Your task to perform on an android device: show emergency info Image 0: 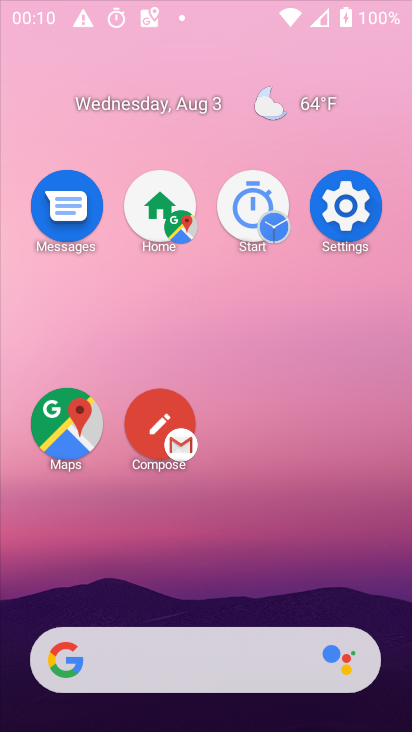
Step 0: drag from (248, 184) to (255, 266)
Your task to perform on an android device: show emergency info Image 1: 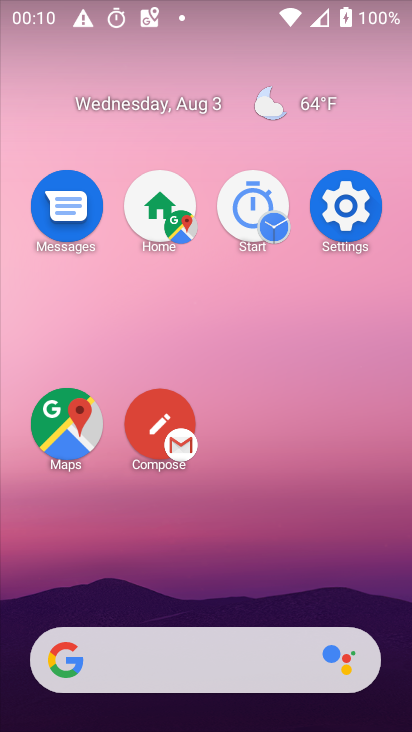
Step 1: click (350, 218)
Your task to perform on an android device: show emergency info Image 2: 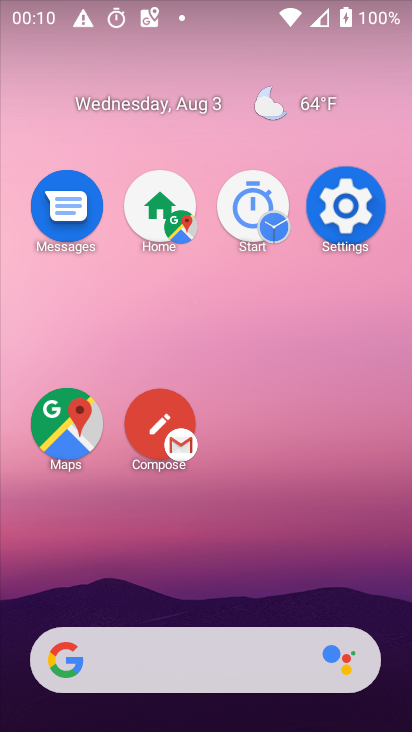
Step 2: click (352, 218)
Your task to perform on an android device: show emergency info Image 3: 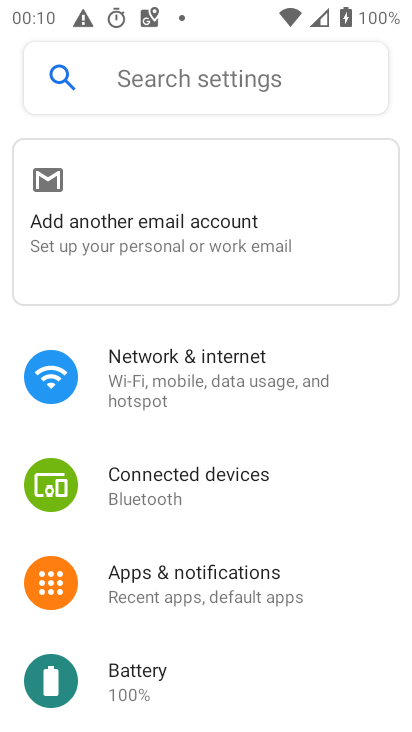
Step 3: drag from (146, 594) to (112, 166)
Your task to perform on an android device: show emergency info Image 4: 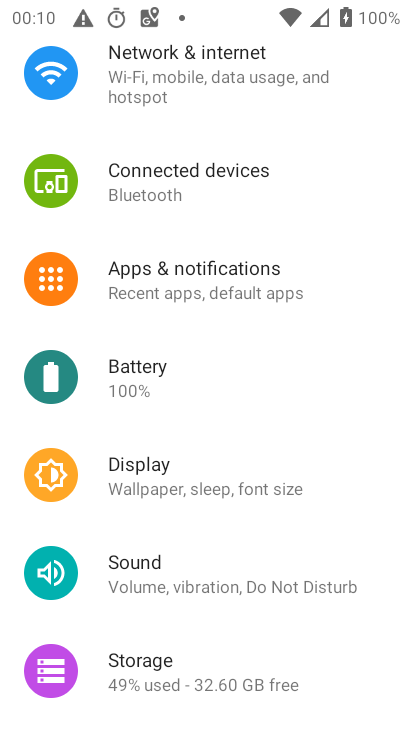
Step 4: drag from (159, 514) to (159, 268)
Your task to perform on an android device: show emergency info Image 5: 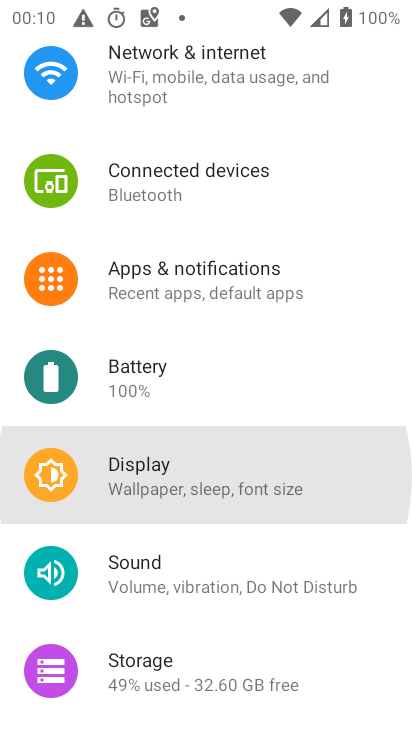
Step 5: drag from (214, 453) to (214, 243)
Your task to perform on an android device: show emergency info Image 6: 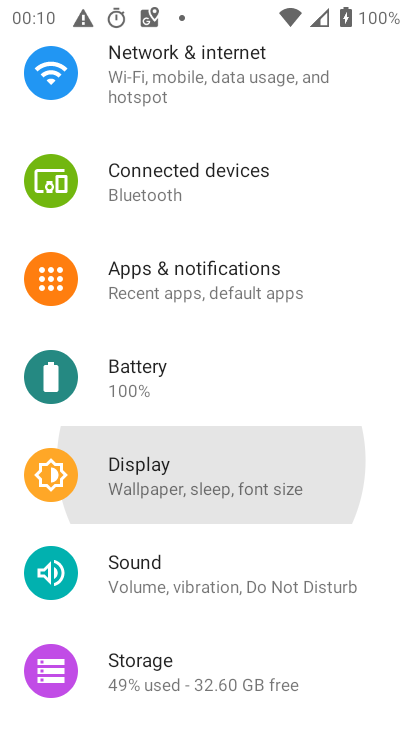
Step 6: drag from (209, 430) to (215, 255)
Your task to perform on an android device: show emergency info Image 7: 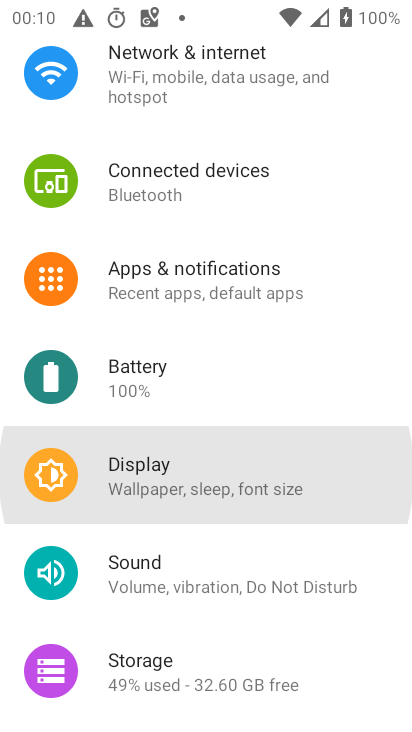
Step 7: drag from (278, 409) to (275, 240)
Your task to perform on an android device: show emergency info Image 8: 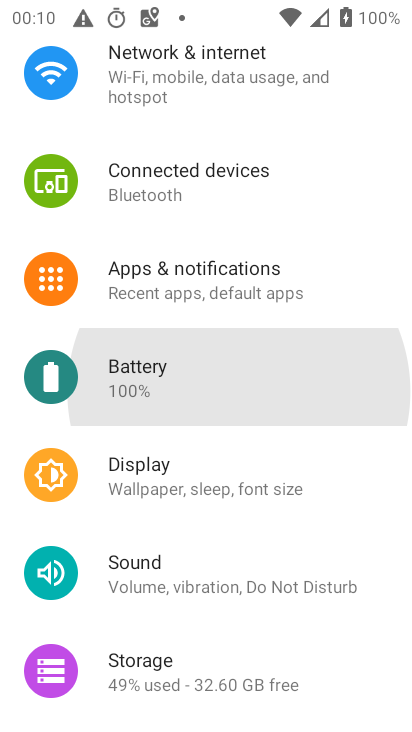
Step 8: drag from (229, 483) to (209, 353)
Your task to perform on an android device: show emergency info Image 9: 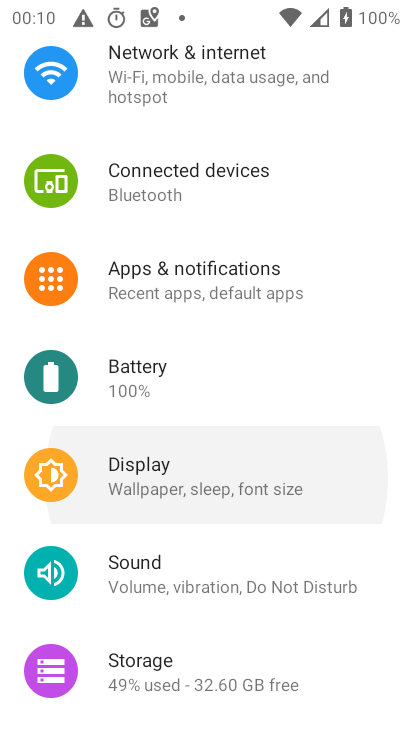
Step 9: drag from (161, 528) to (155, 348)
Your task to perform on an android device: show emergency info Image 10: 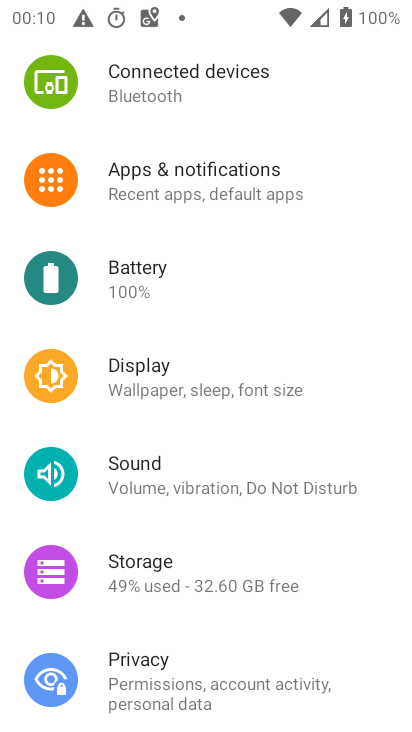
Step 10: drag from (148, 557) to (148, 346)
Your task to perform on an android device: show emergency info Image 11: 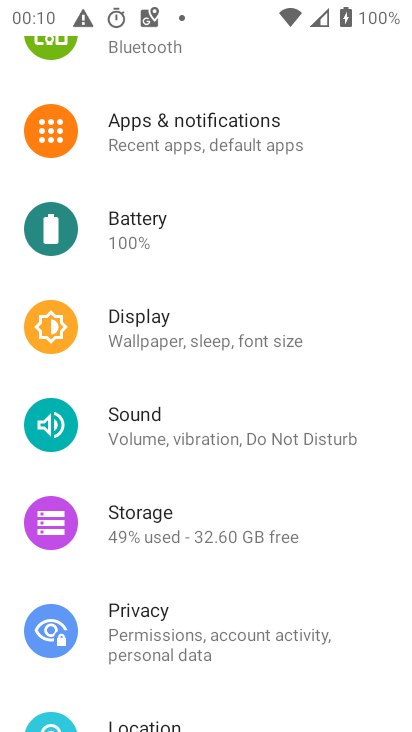
Step 11: drag from (124, 671) to (147, 389)
Your task to perform on an android device: show emergency info Image 12: 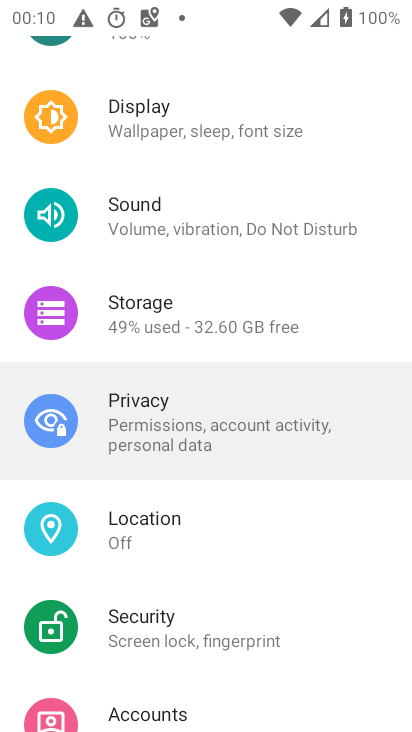
Step 12: drag from (201, 662) to (206, 383)
Your task to perform on an android device: show emergency info Image 13: 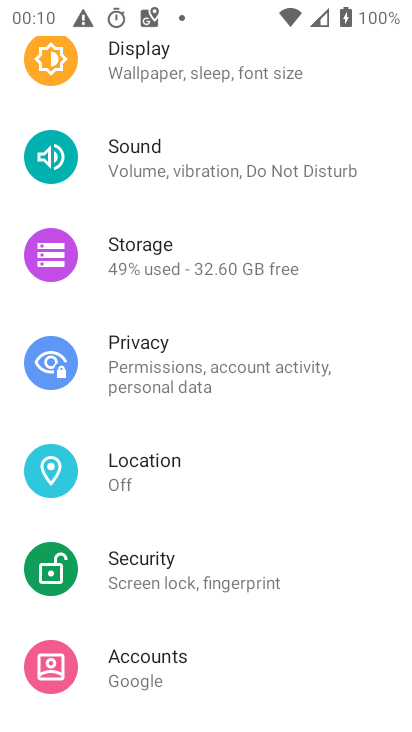
Step 13: drag from (240, 525) to (240, 386)
Your task to perform on an android device: show emergency info Image 14: 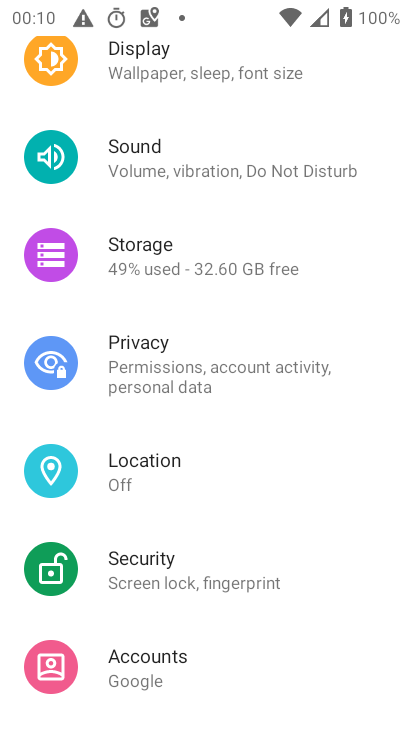
Step 14: drag from (232, 610) to (220, 207)
Your task to perform on an android device: show emergency info Image 15: 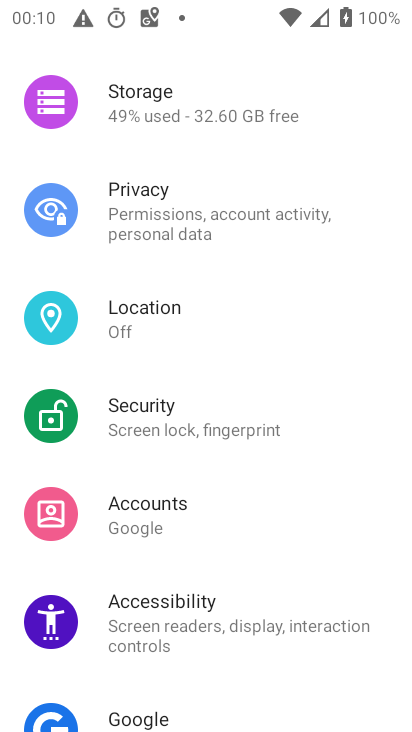
Step 15: drag from (231, 575) to (248, 220)
Your task to perform on an android device: show emergency info Image 16: 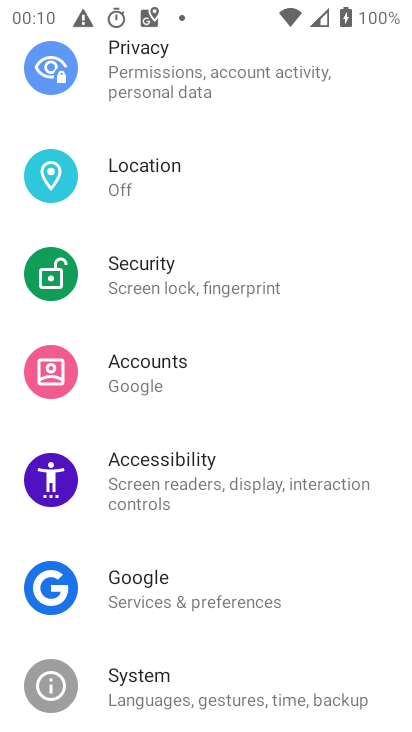
Step 16: drag from (266, 554) to (276, 173)
Your task to perform on an android device: show emergency info Image 17: 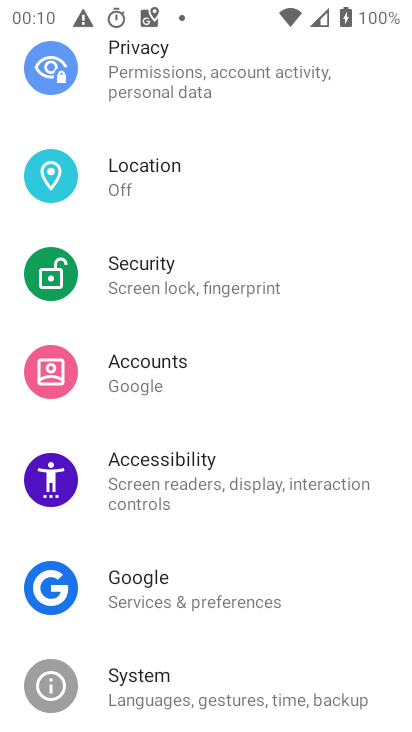
Step 17: drag from (216, 687) to (235, 204)
Your task to perform on an android device: show emergency info Image 18: 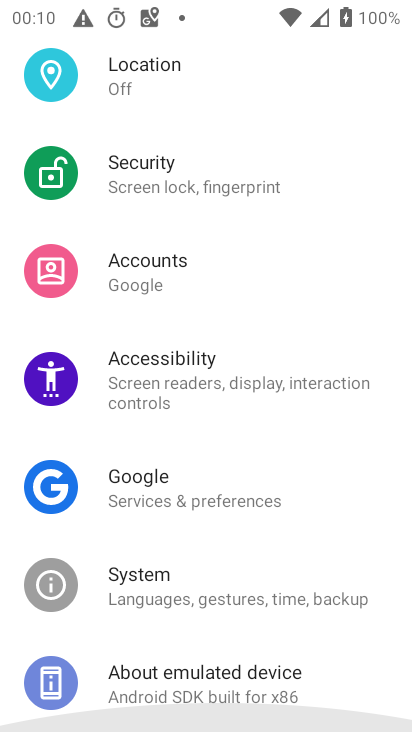
Step 18: drag from (205, 661) to (194, 277)
Your task to perform on an android device: show emergency info Image 19: 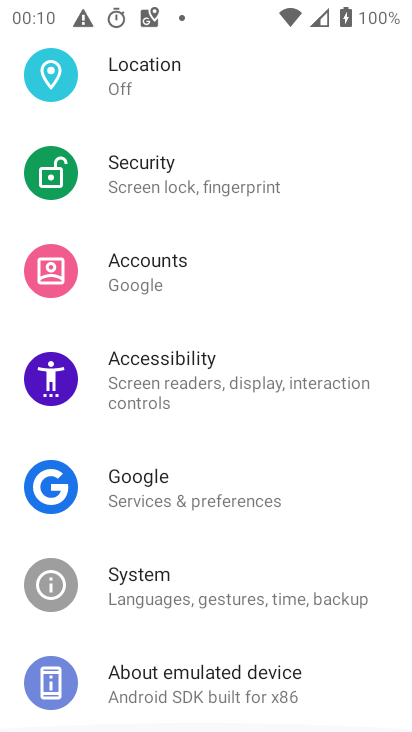
Step 19: drag from (186, 378) to (160, 208)
Your task to perform on an android device: show emergency info Image 20: 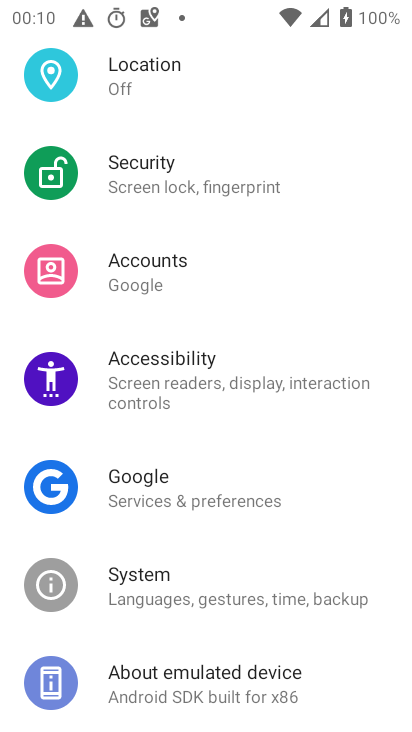
Step 20: click (185, 687)
Your task to perform on an android device: show emergency info Image 21: 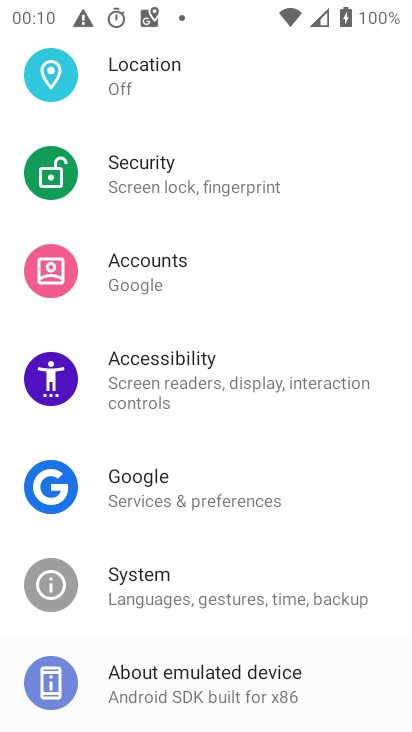
Step 21: click (177, 665)
Your task to perform on an android device: show emergency info Image 22: 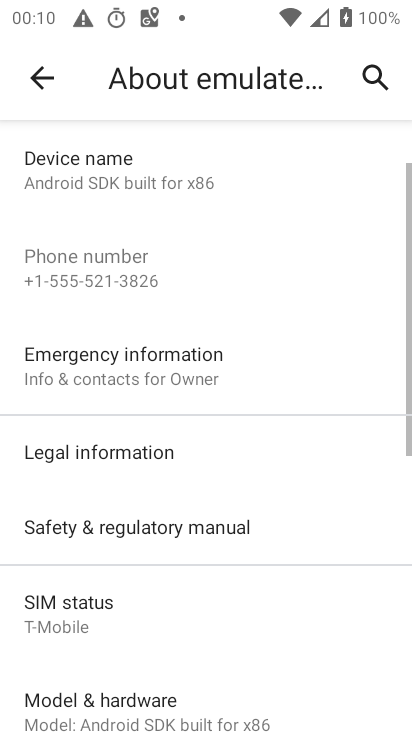
Step 22: click (118, 364)
Your task to perform on an android device: show emergency info Image 23: 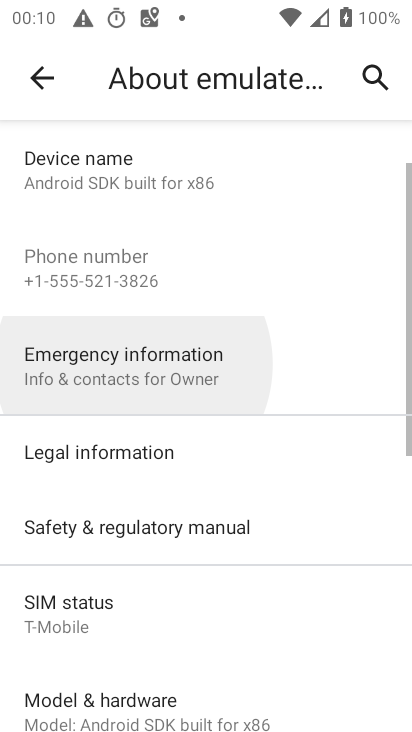
Step 23: click (118, 364)
Your task to perform on an android device: show emergency info Image 24: 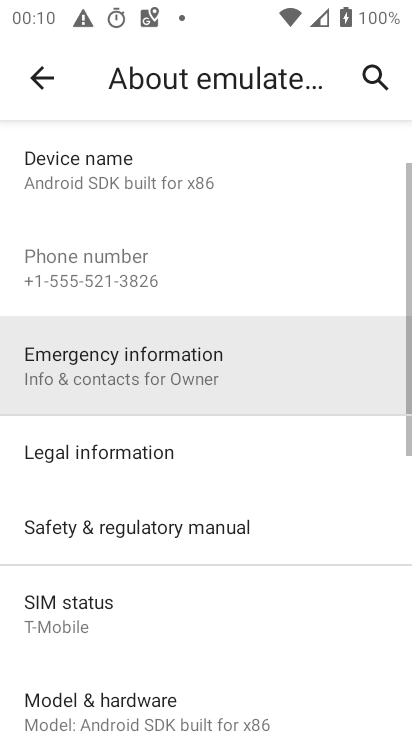
Step 24: click (119, 363)
Your task to perform on an android device: show emergency info Image 25: 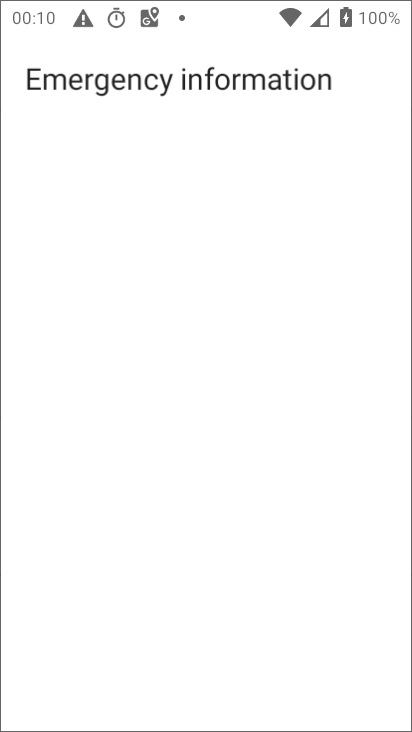
Step 25: click (132, 367)
Your task to perform on an android device: show emergency info Image 26: 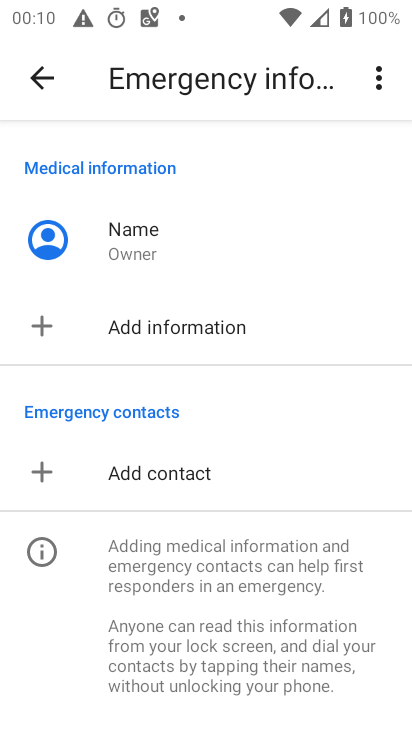
Step 26: task complete